Your task to perform on an android device: open app "Walmart Shopping & Grocery" (install if not already installed) Image 0: 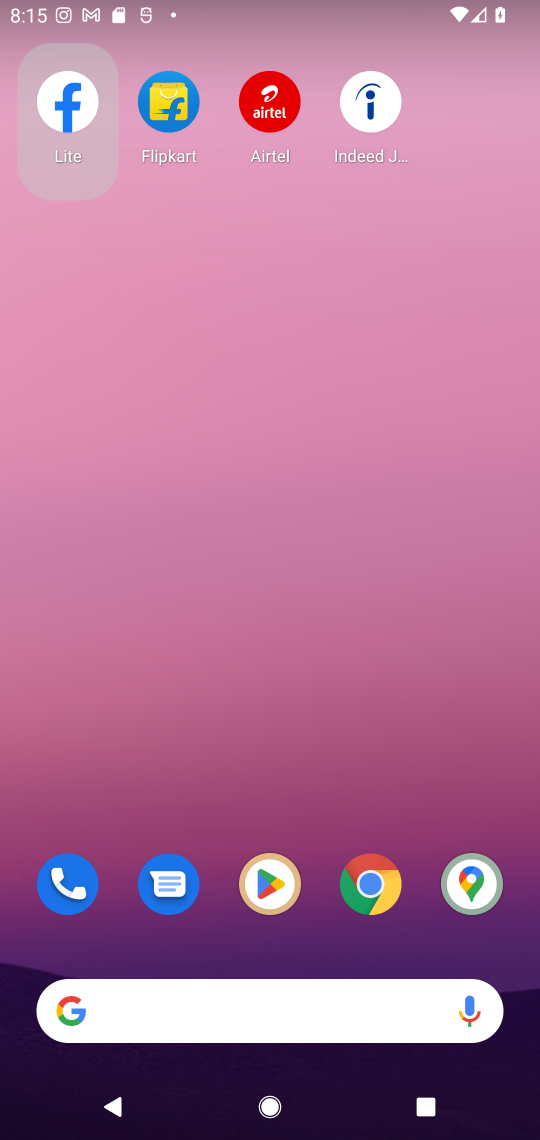
Step 0: drag from (251, 1009) to (269, 112)
Your task to perform on an android device: open app "Walmart Shopping & Grocery" (install if not already installed) Image 1: 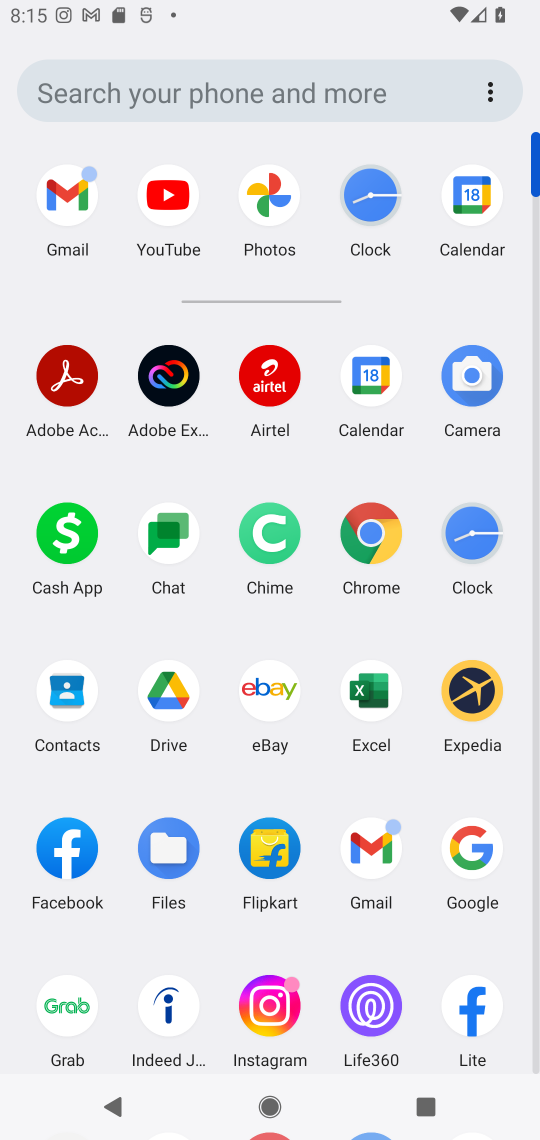
Step 1: drag from (217, 926) to (334, 312)
Your task to perform on an android device: open app "Walmart Shopping & Grocery" (install if not already installed) Image 2: 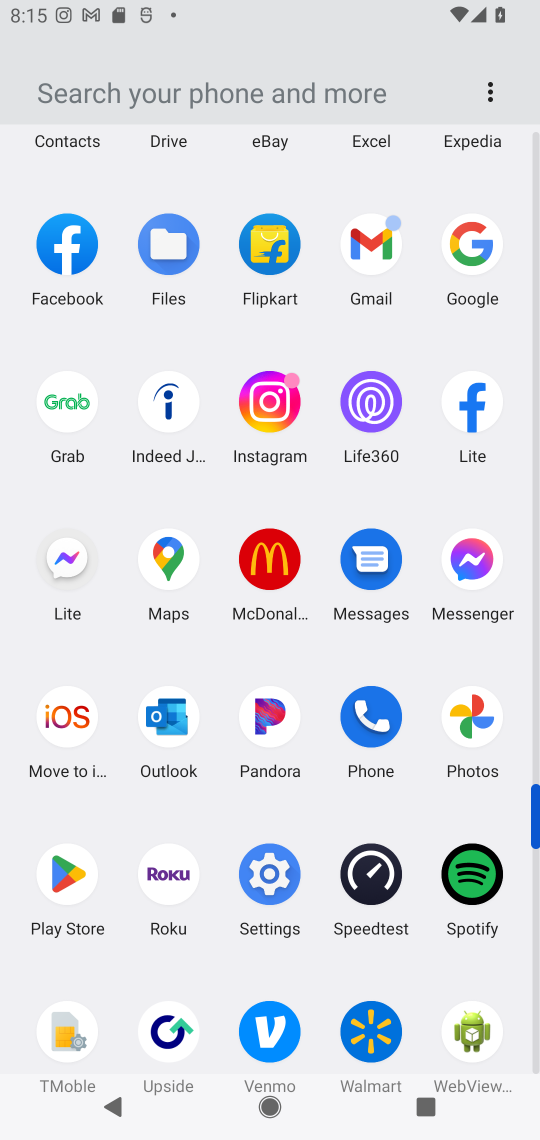
Step 2: click (74, 875)
Your task to perform on an android device: open app "Walmart Shopping & Grocery" (install if not already installed) Image 3: 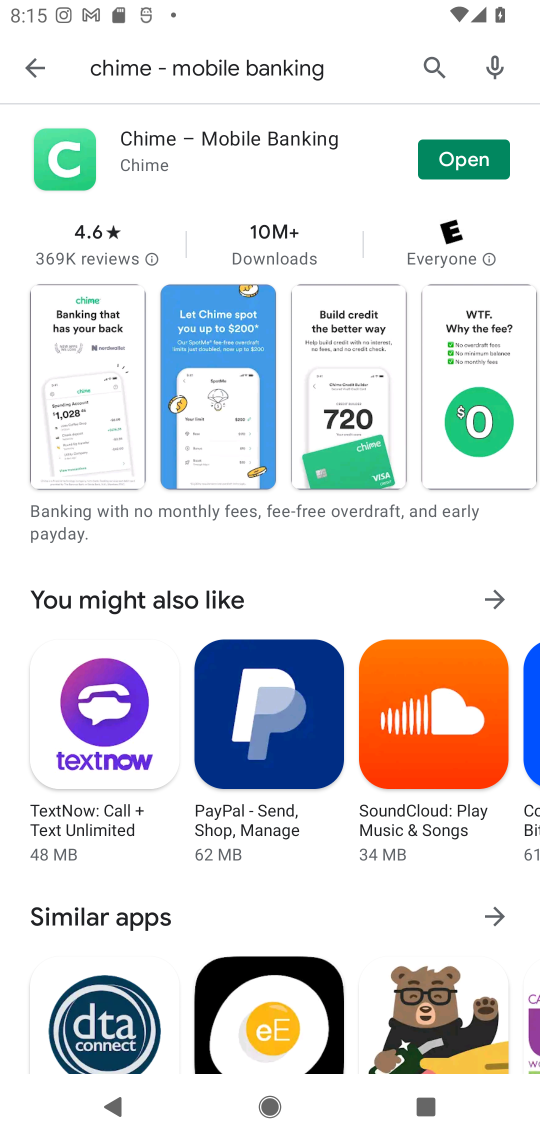
Step 3: press back button
Your task to perform on an android device: open app "Walmart Shopping & Grocery" (install if not already installed) Image 4: 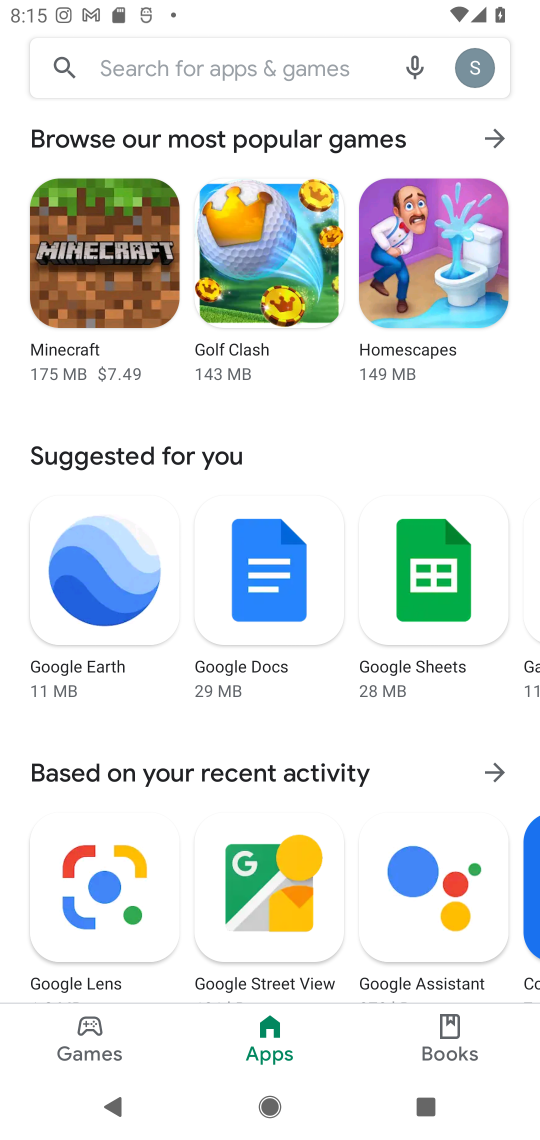
Step 4: click (270, 63)
Your task to perform on an android device: open app "Walmart Shopping & Grocery" (install if not already installed) Image 5: 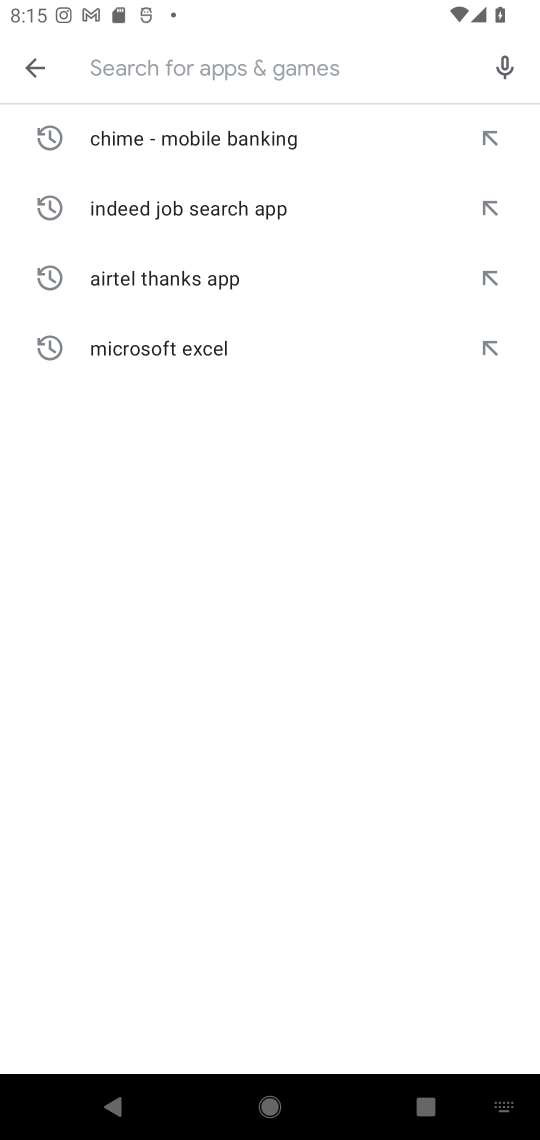
Step 5: type "Walmart Shopping & Grocery"
Your task to perform on an android device: open app "Walmart Shopping & Grocery" (install if not already installed) Image 6: 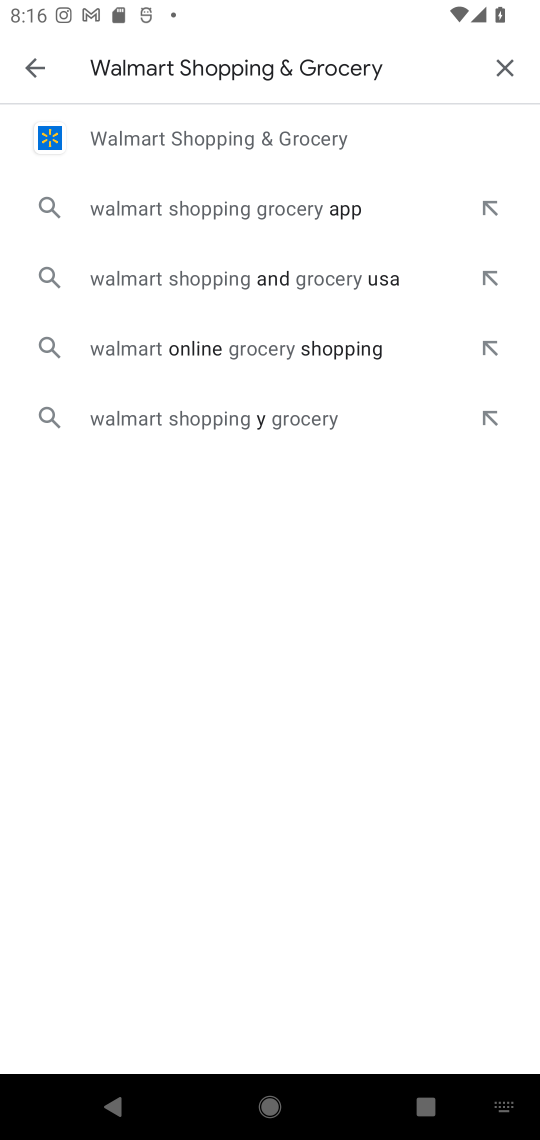
Step 6: click (336, 151)
Your task to perform on an android device: open app "Walmart Shopping & Grocery" (install if not already installed) Image 7: 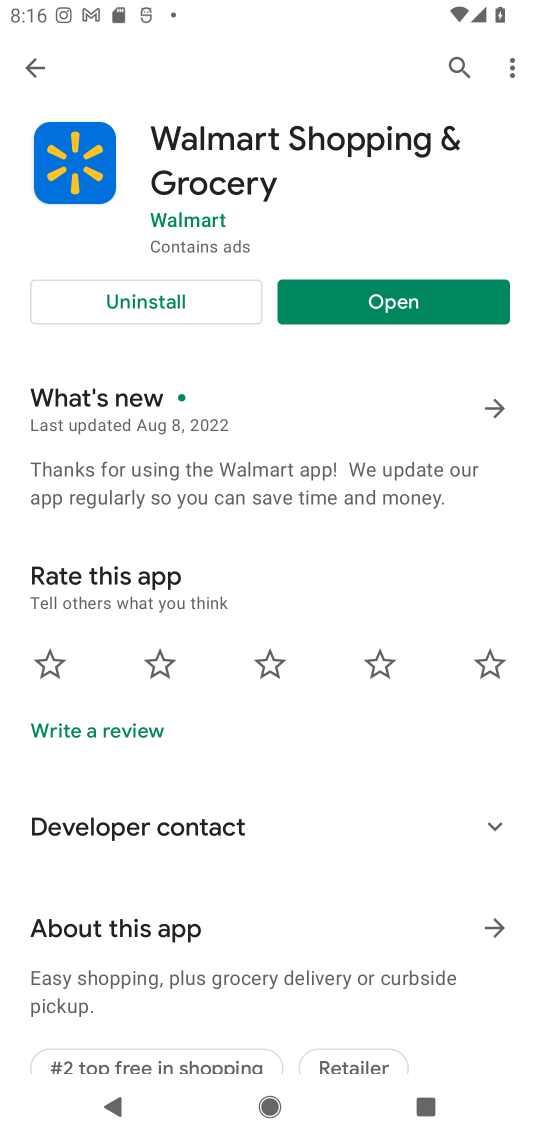
Step 7: click (355, 301)
Your task to perform on an android device: open app "Walmart Shopping & Grocery" (install if not already installed) Image 8: 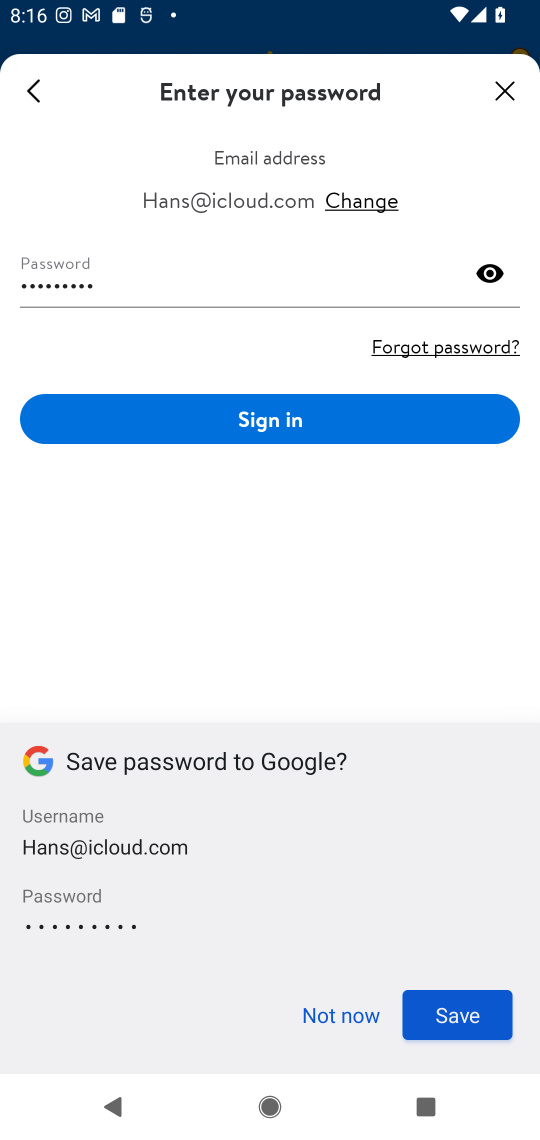
Step 8: task complete